Your task to perform on an android device: turn off sleep mode Image 0: 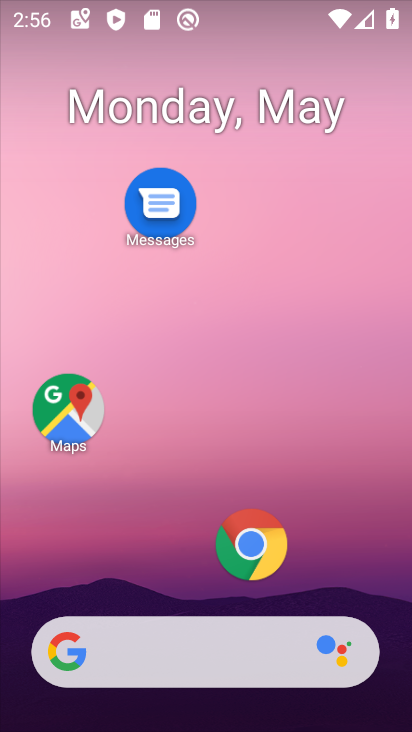
Step 0: drag from (187, 585) to (231, 103)
Your task to perform on an android device: turn off sleep mode Image 1: 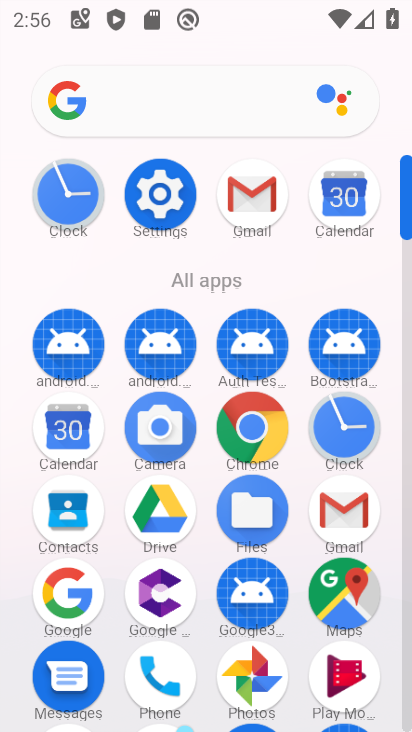
Step 1: click (178, 218)
Your task to perform on an android device: turn off sleep mode Image 2: 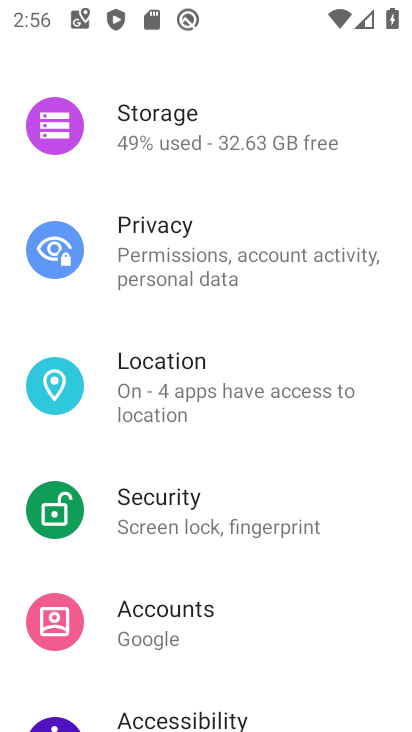
Step 2: drag from (206, 230) to (235, 649)
Your task to perform on an android device: turn off sleep mode Image 3: 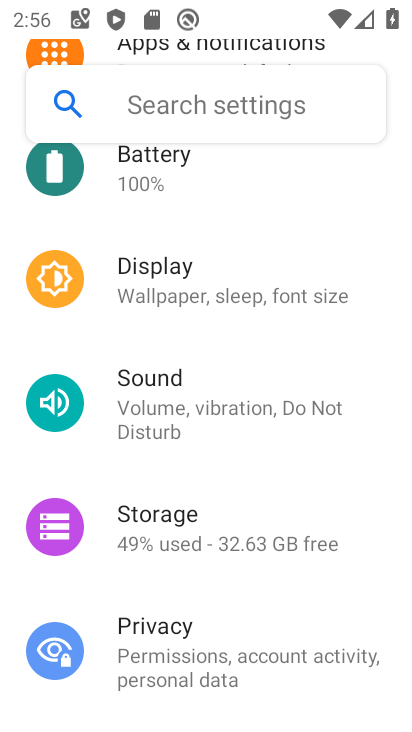
Step 3: drag from (245, 265) to (280, 473)
Your task to perform on an android device: turn off sleep mode Image 4: 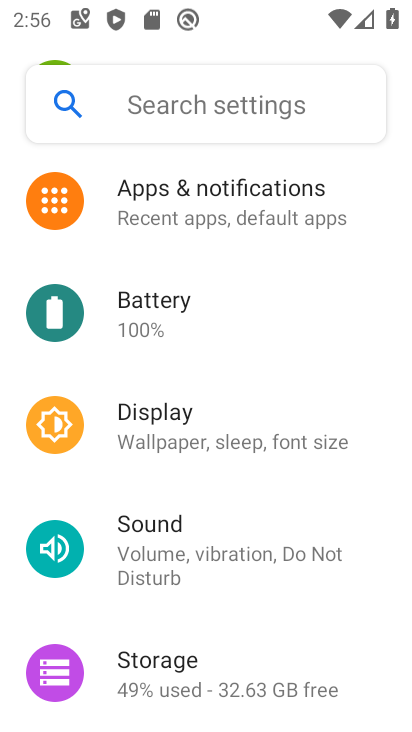
Step 4: drag from (269, 284) to (321, 454)
Your task to perform on an android device: turn off sleep mode Image 5: 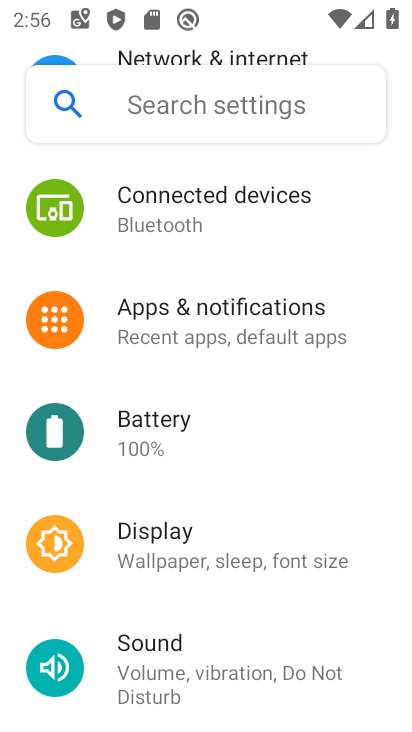
Step 5: drag from (287, 218) to (330, 458)
Your task to perform on an android device: turn off sleep mode Image 6: 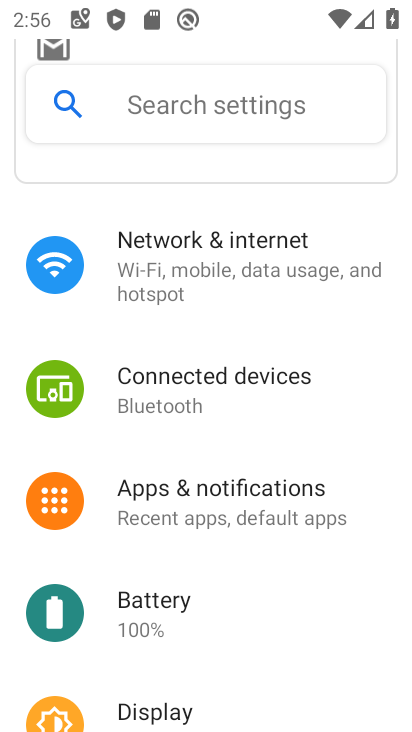
Step 6: drag from (216, 346) to (243, 373)
Your task to perform on an android device: turn off sleep mode Image 7: 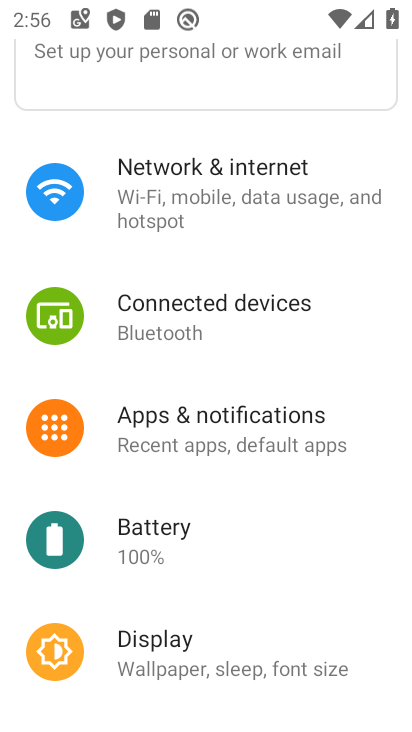
Step 7: click (199, 644)
Your task to perform on an android device: turn off sleep mode Image 8: 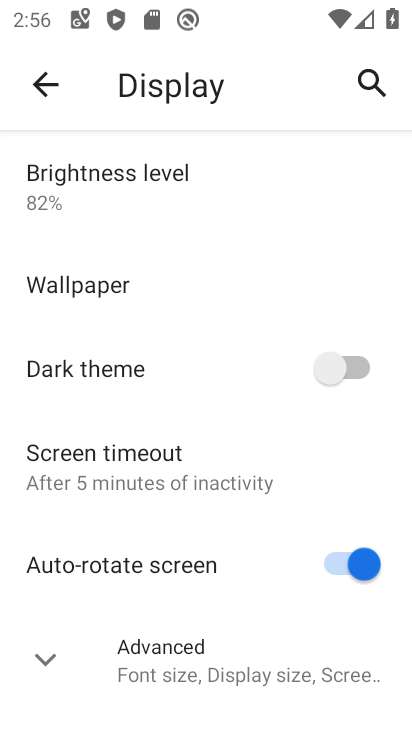
Step 8: drag from (189, 541) to (185, 317)
Your task to perform on an android device: turn off sleep mode Image 9: 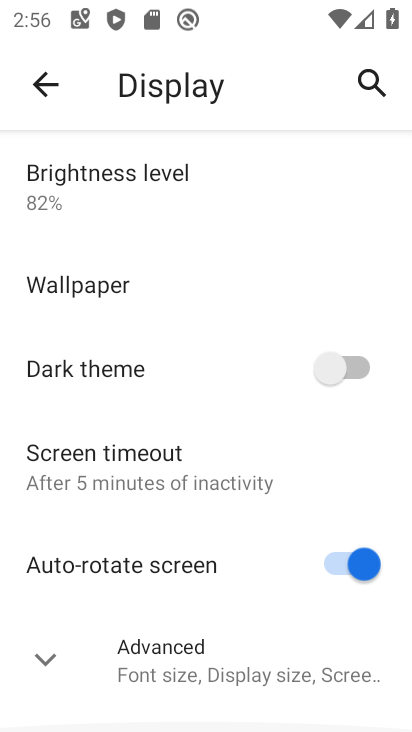
Step 9: click (166, 468)
Your task to perform on an android device: turn off sleep mode Image 10: 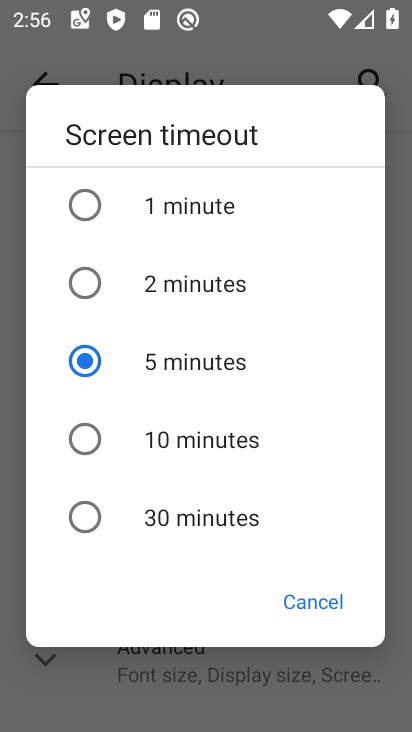
Step 10: click (185, 443)
Your task to perform on an android device: turn off sleep mode Image 11: 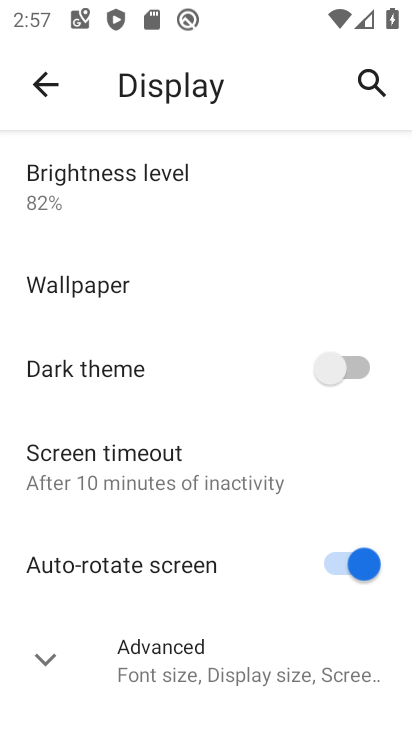
Step 11: task complete